Your task to perform on an android device: turn smart compose on in the gmail app Image 0: 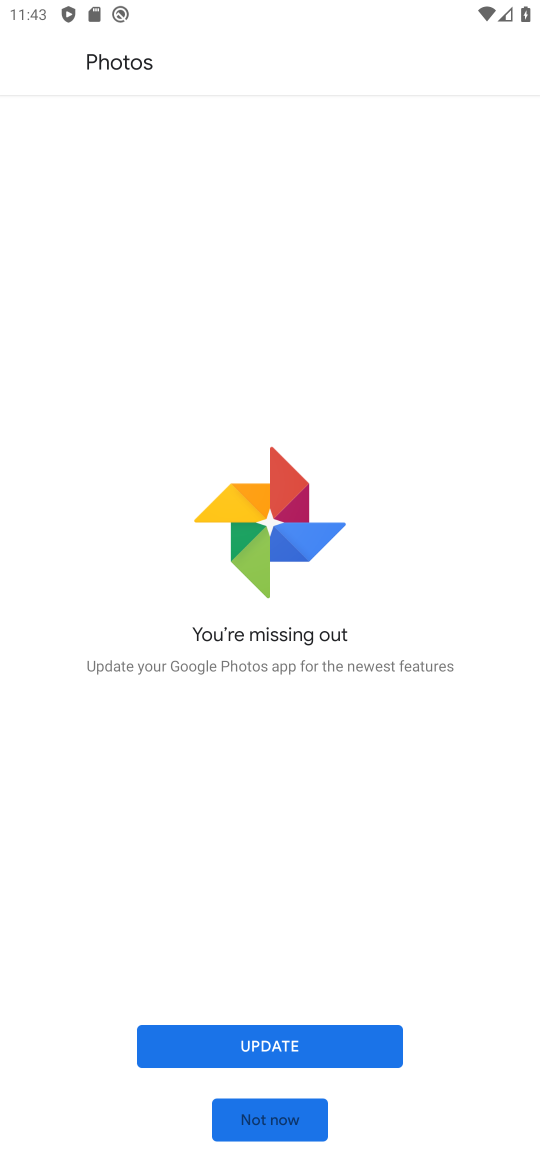
Step 0: task impossible